Your task to perform on an android device: uninstall "LiveIn - Share Your Moment" Image 0: 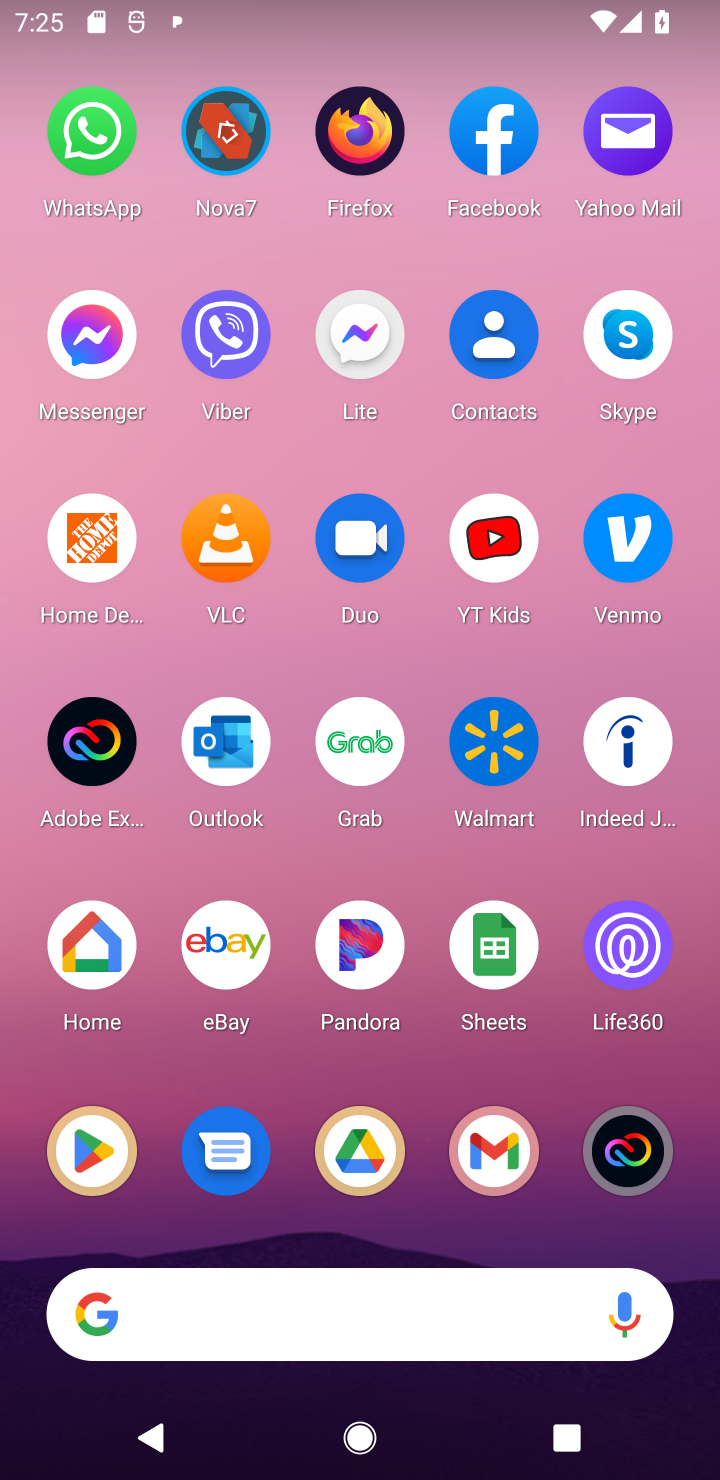
Step 0: click (97, 1160)
Your task to perform on an android device: uninstall "LiveIn - Share Your Moment" Image 1: 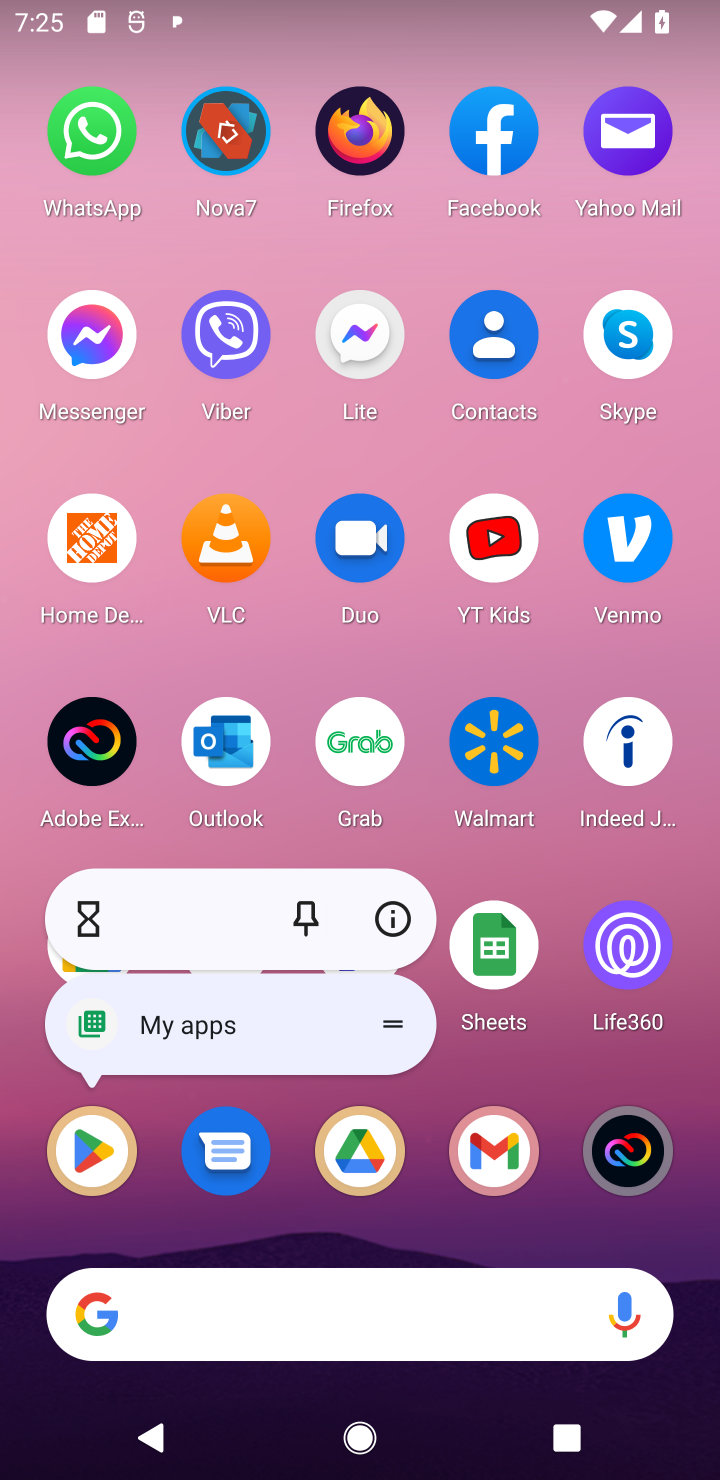
Step 1: click (97, 1160)
Your task to perform on an android device: uninstall "LiveIn - Share Your Moment" Image 2: 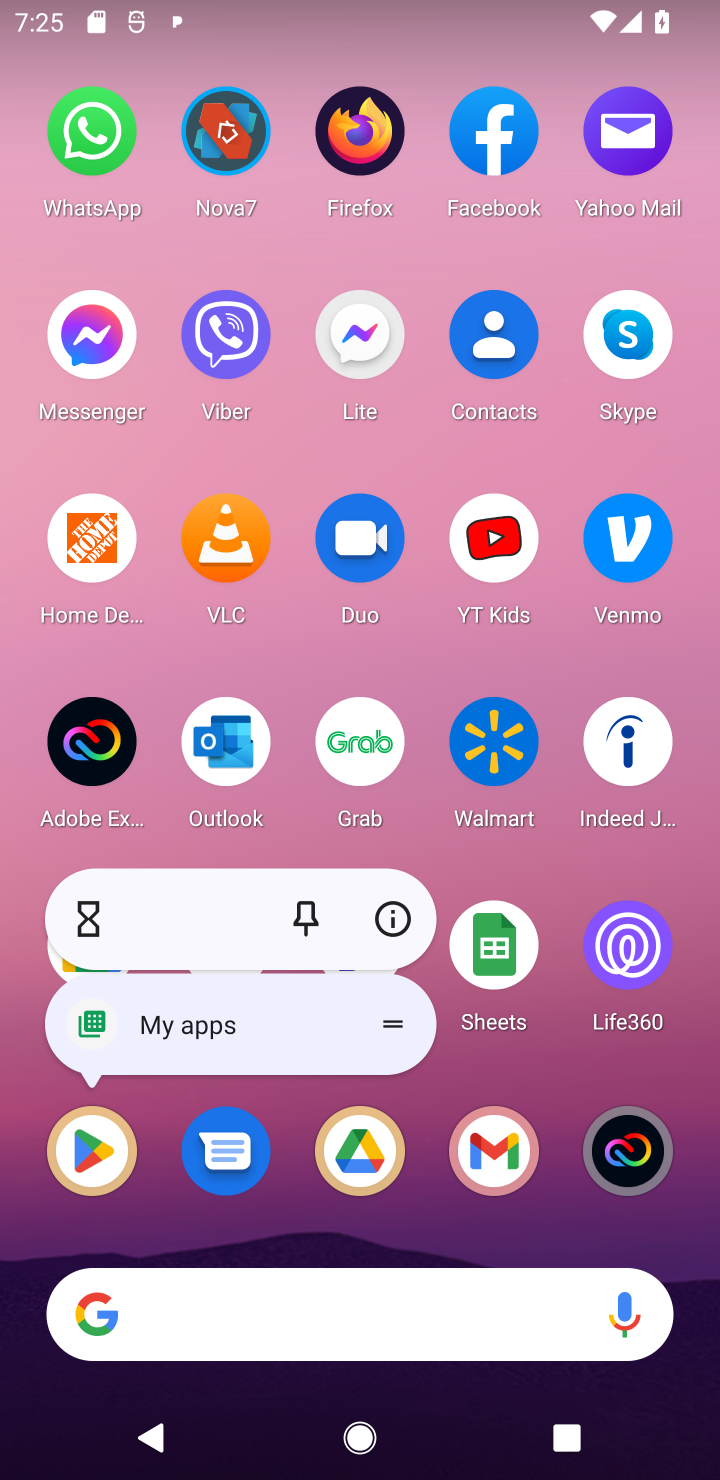
Step 2: click (97, 1160)
Your task to perform on an android device: uninstall "LiveIn - Share Your Moment" Image 3: 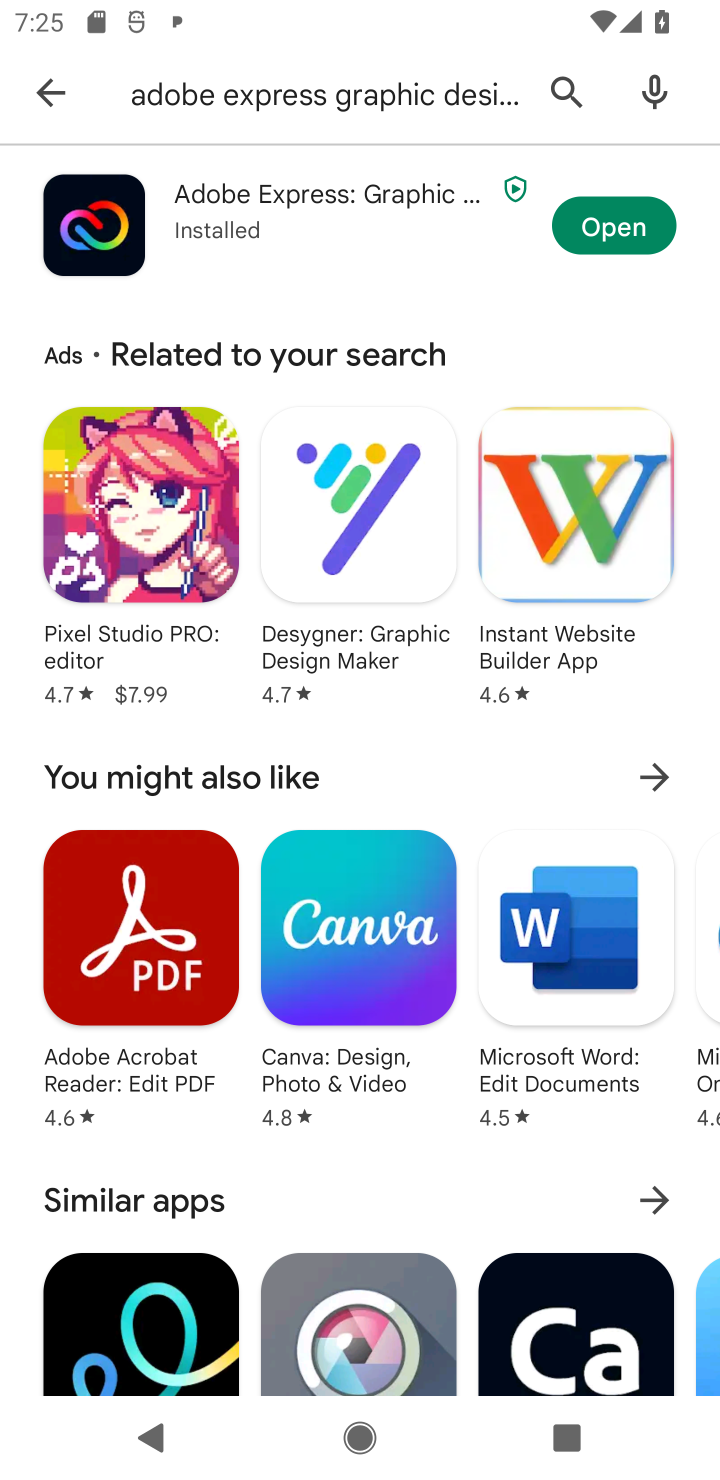
Step 3: click (563, 88)
Your task to perform on an android device: uninstall "LiveIn - Share Your Moment" Image 4: 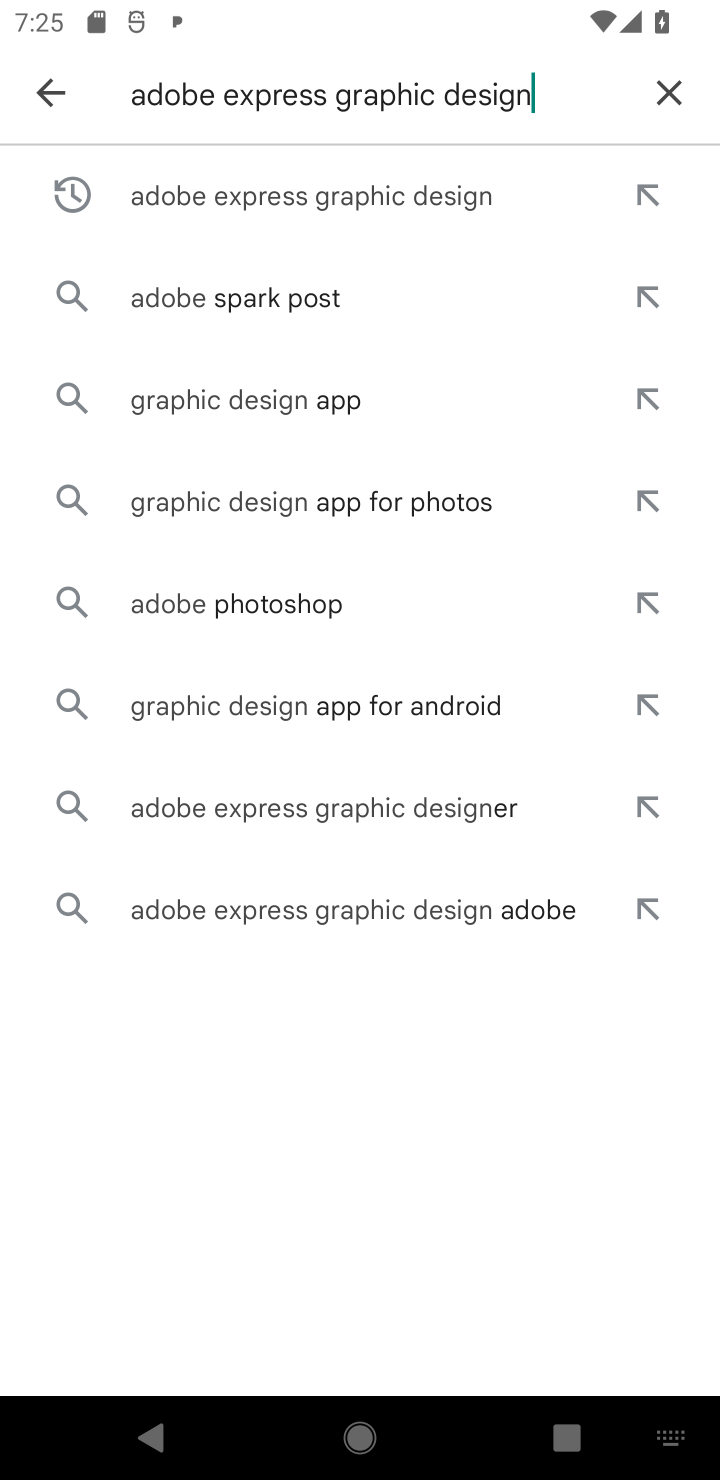
Step 4: click (669, 84)
Your task to perform on an android device: uninstall "LiveIn - Share Your Moment" Image 5: 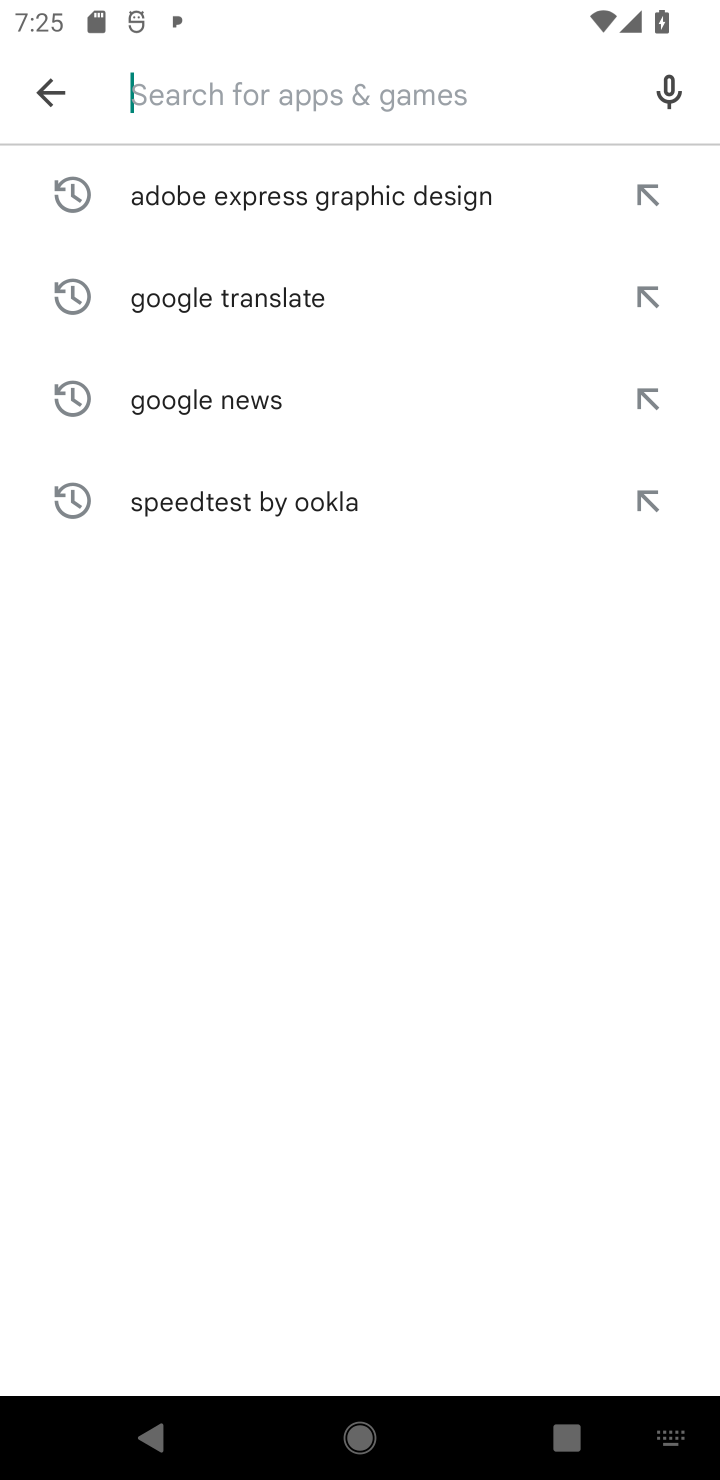
Step 5: type "LiveIn - Share Your Moment"
Your task to perform on an android device: uninstall "LiveIn - Share Your Moment" Image 6: 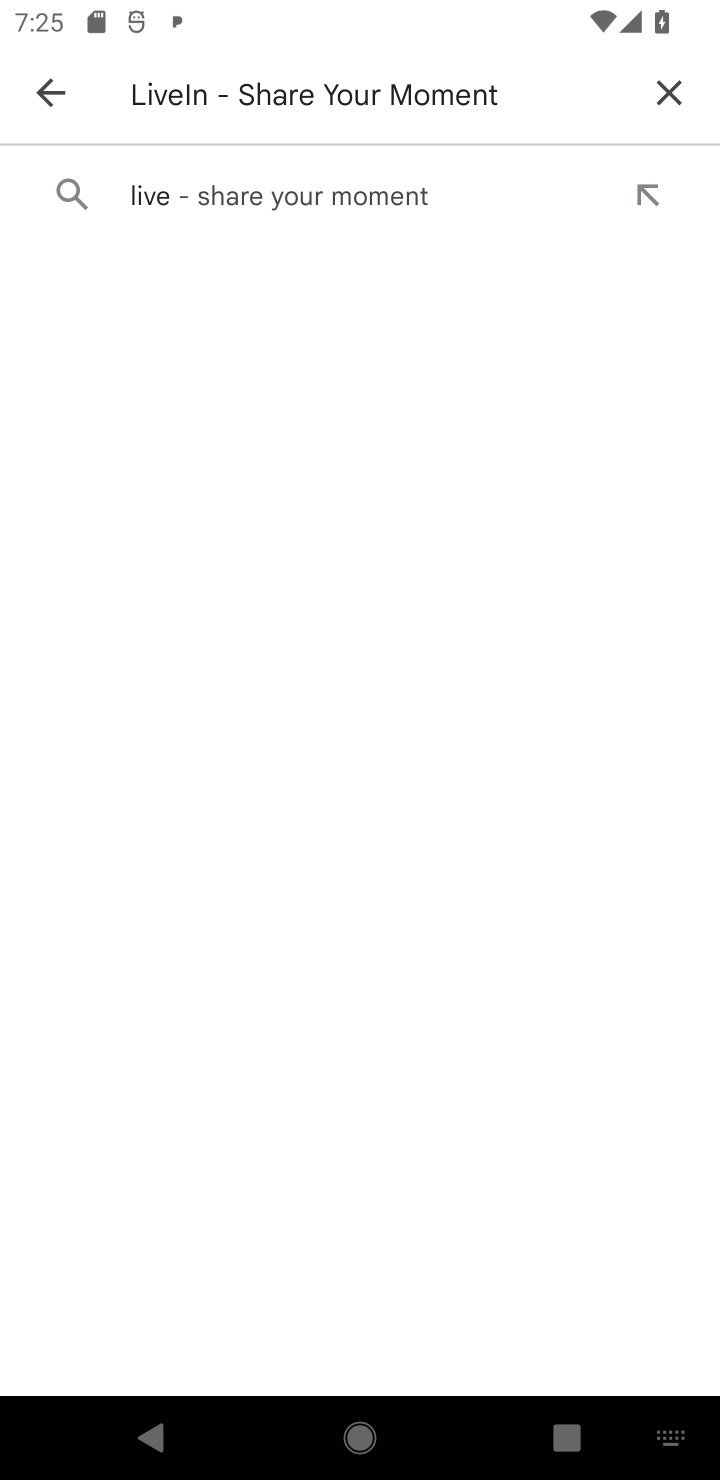
Step 6: click (243, 211)
Your task to perform on an android device: uninstall "LiveIn - Share Your Moment" Image 7: 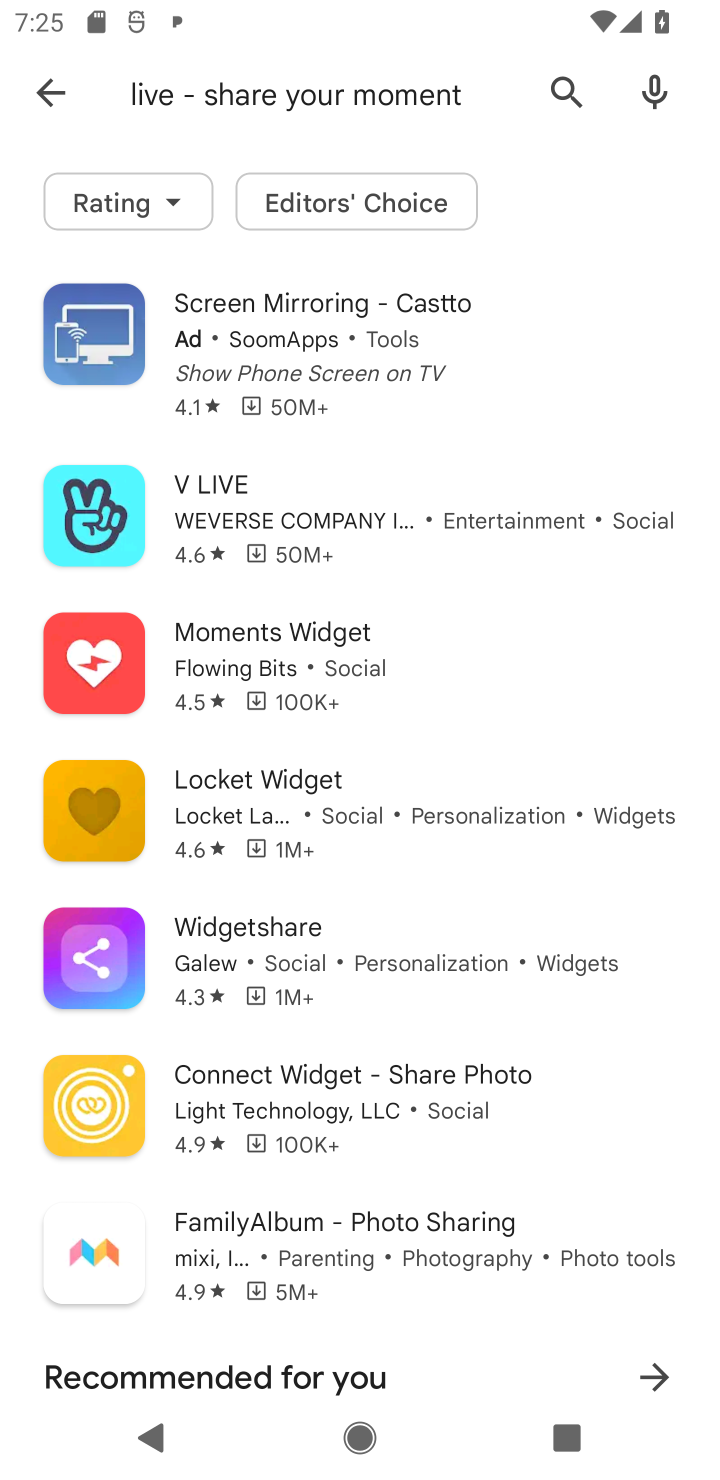
Step 7: task complete